Your task to perform on an android device: change the clock style Image 0: 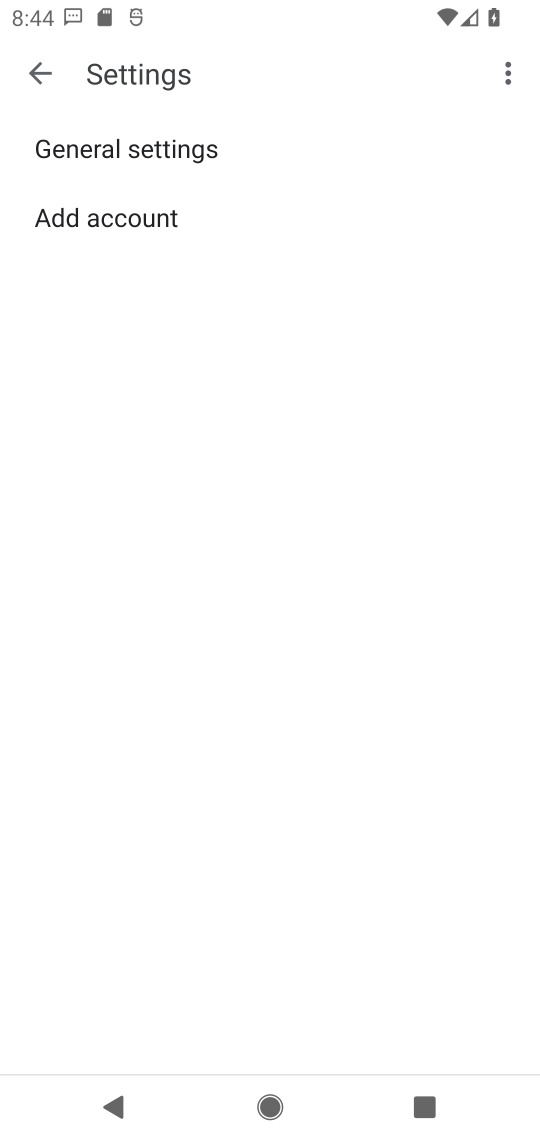
Step 0: press home button
Your task to perform on an android device: change the clock style Image 1: 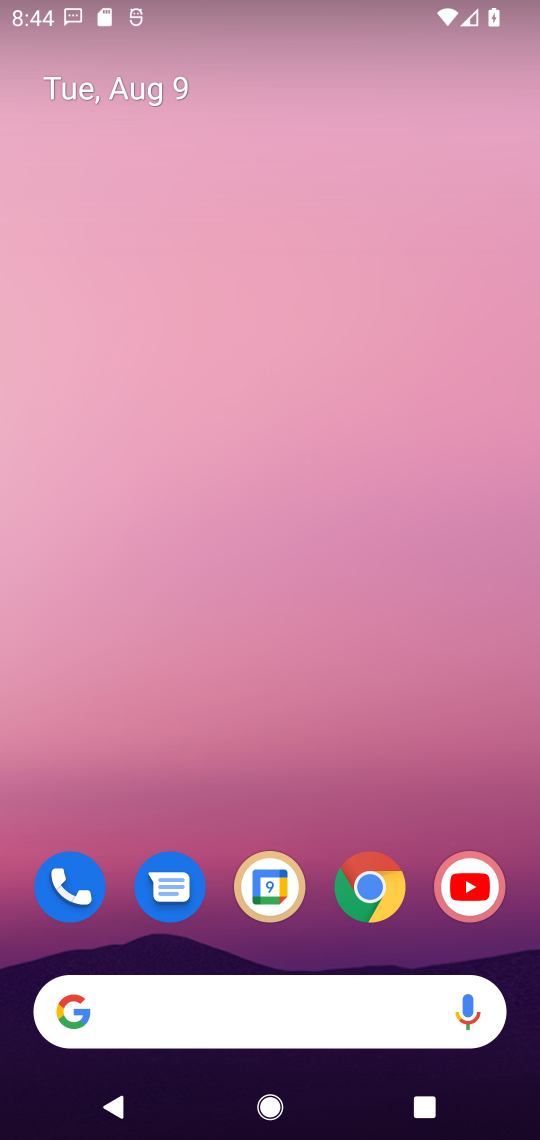
Step 1: drag from (281, 765) to (267, 203)
Your task to perform on an android device: change the clock style Image 2: 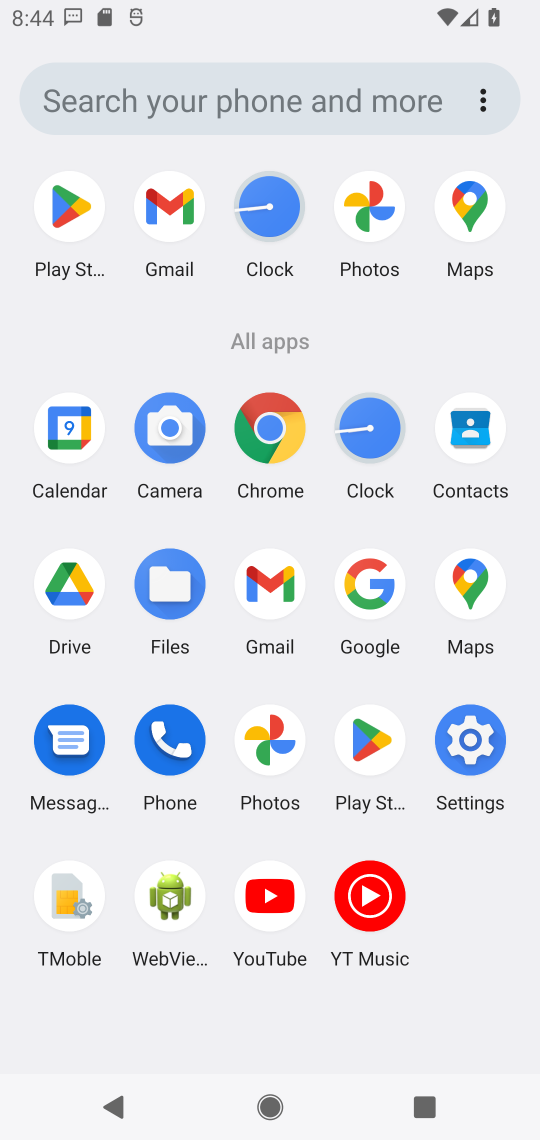
Step 2: click (265, 256)
Your task to perform on an android device: change the clock style Image 3: 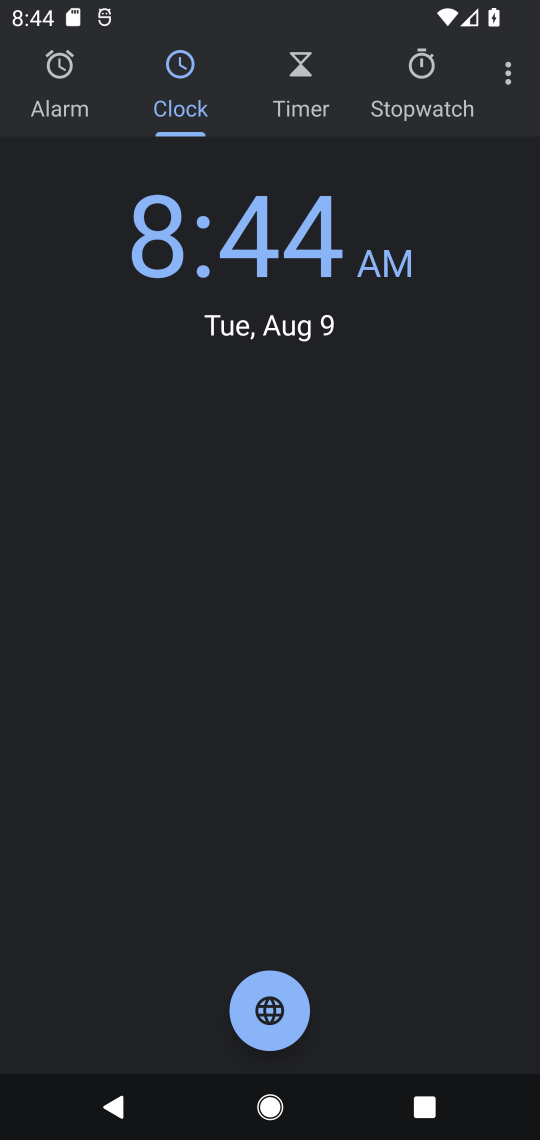
Step 3: click (494, 87)
Your task to perform on an android device: change the clock style Image 4: 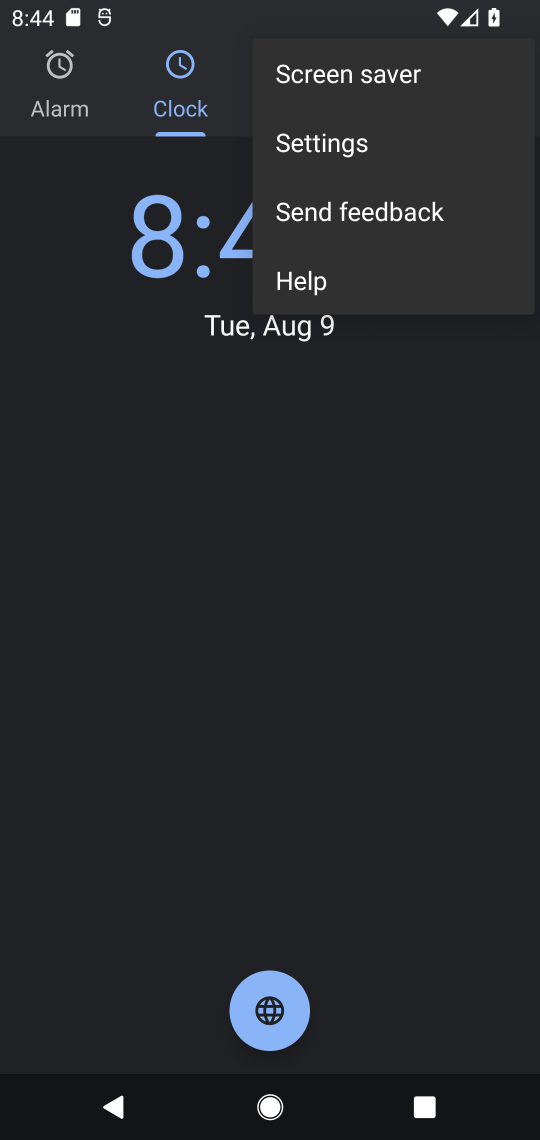
Step 4: click (342, 135)
Your task to perform on an android device: change the clock style Image 5: 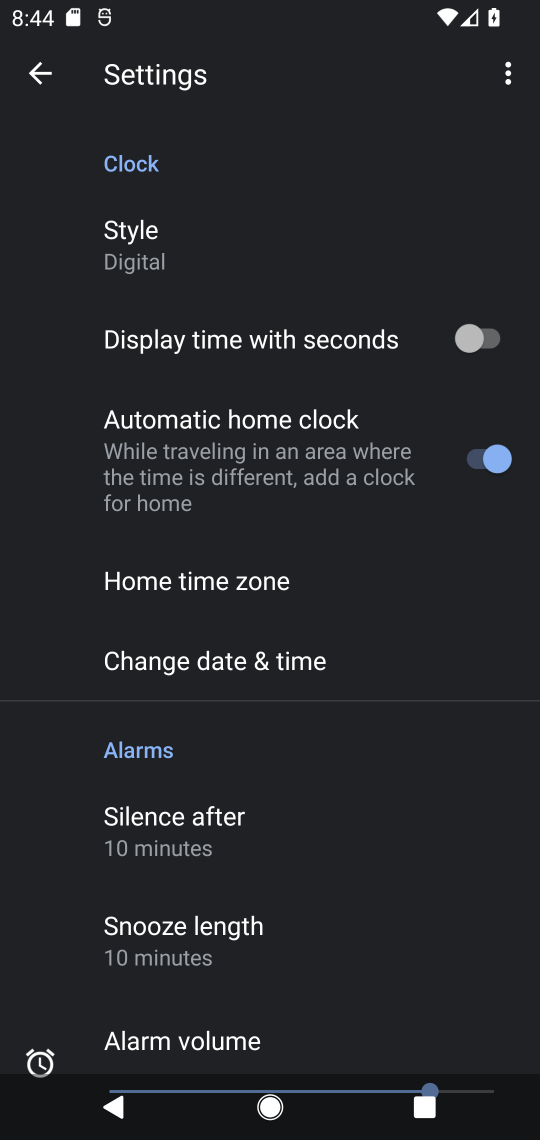
Step 5: click (200, 258)
Your task to perform on an android device: change the clock style Image 6: 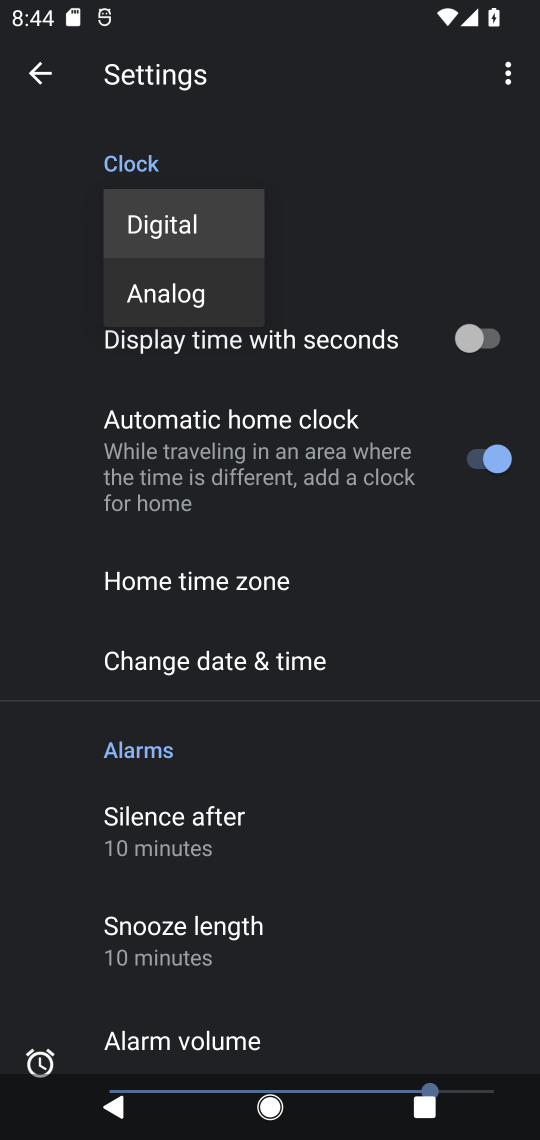
Step 6: click (190, 288)
Your task to perform on an android device: change the clock style Image 7: 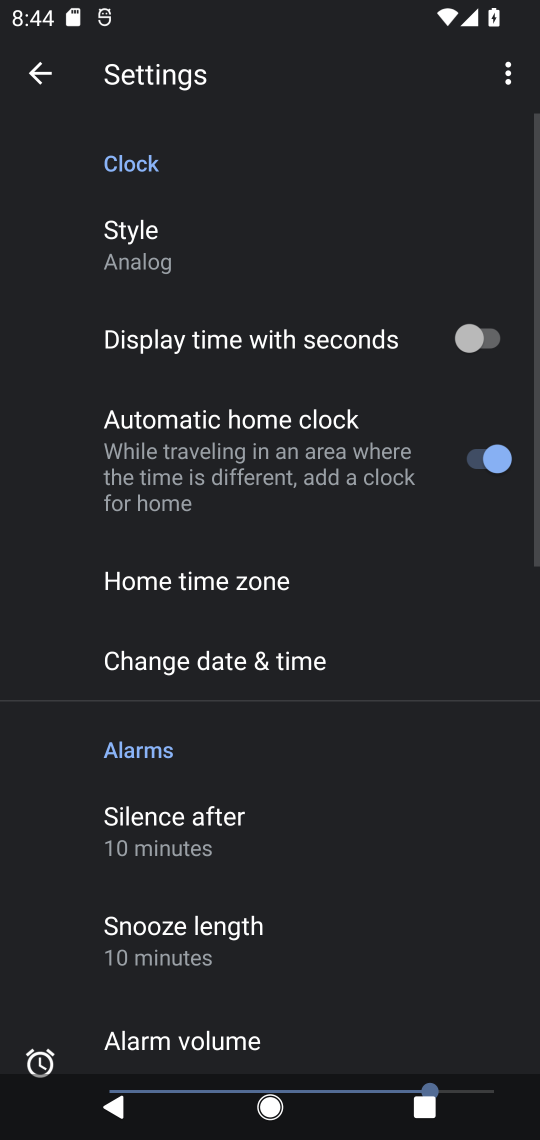
Step 7: task complete